Your task to perform on an android device: install app "Microsoft Authenticator" Image 0: 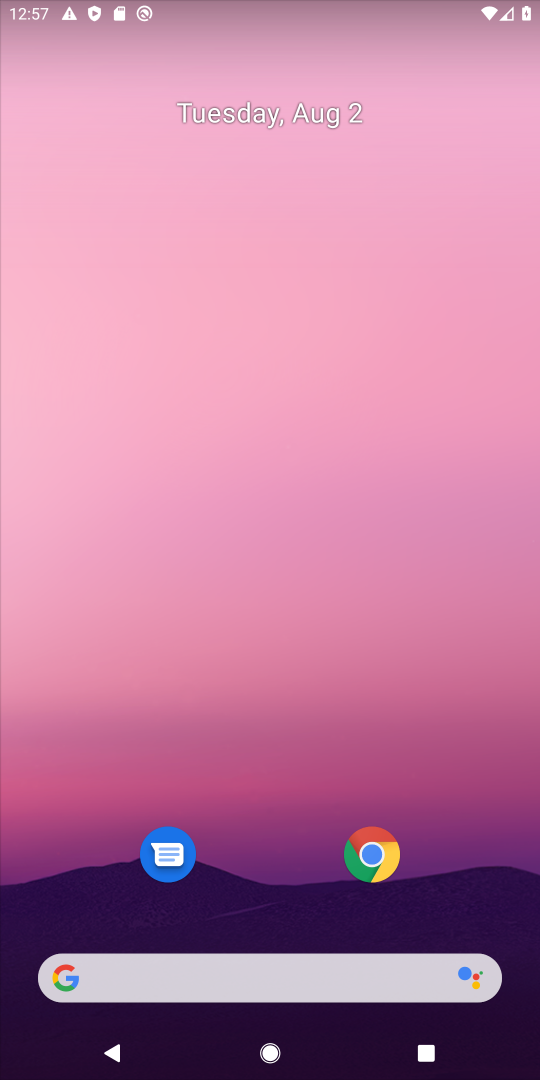
Step 0: drag from (291, 1041) to (228, 265)
Your task to perform on an android device: install app "Microsoft Authenticator" Image 1: 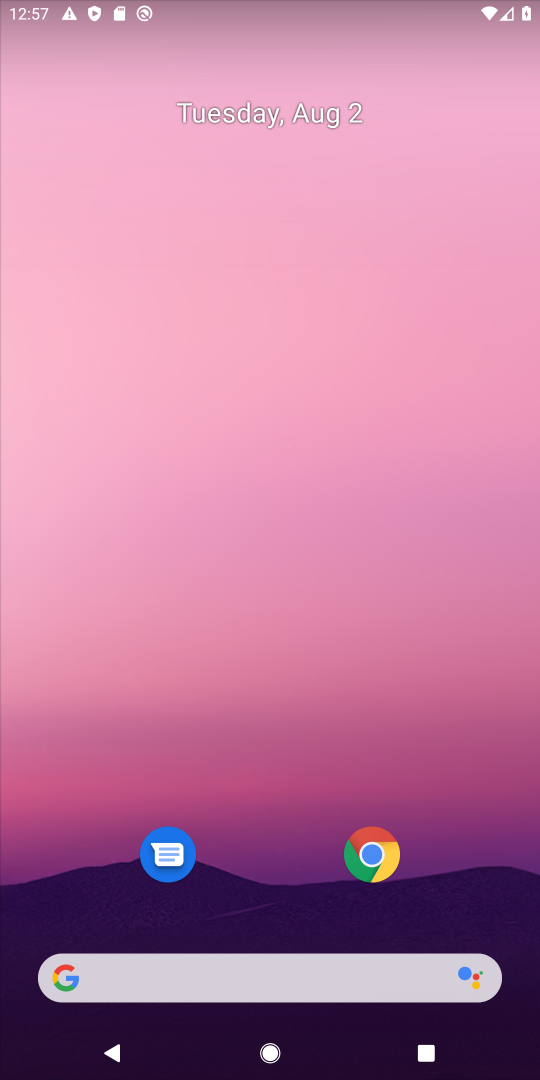
Step 1: drag from (296, 1067) to (223, 118)
Your task to perform on an android device: install app "Microsoft Authenticator" Image 2: 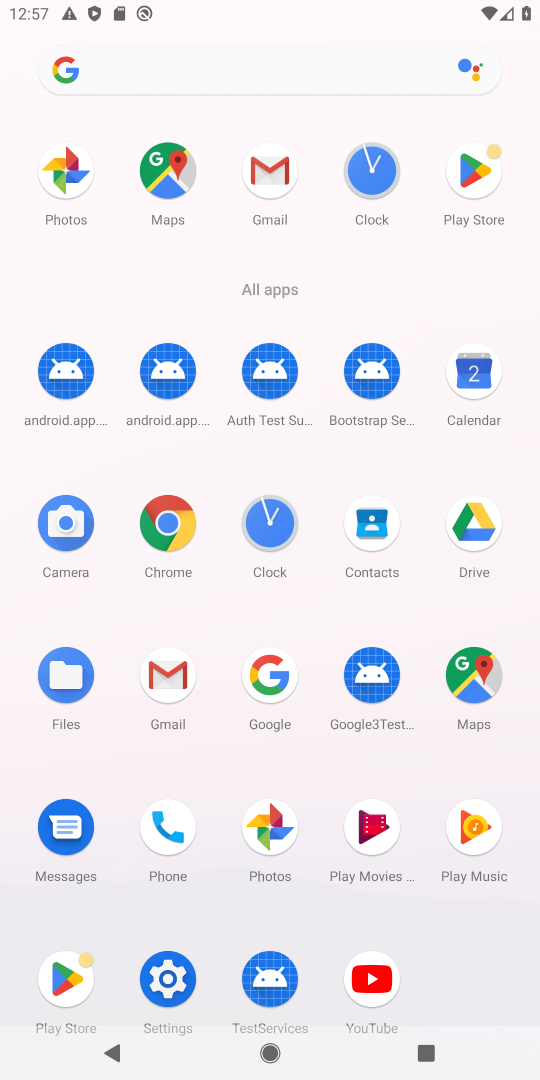
Step 2: click (469, 174)
Your task to perform on an android device: install app "Microsoft Authenticator" Image 3: 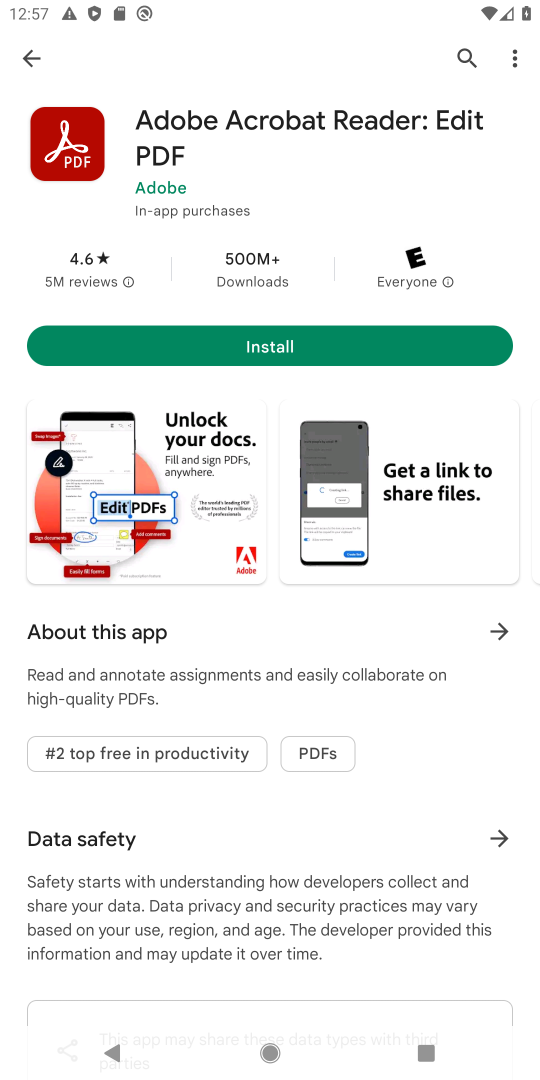
Step 3: click (466, 59)
Your task to perform on an android device: install app "Microsoft Authenticator" Image 4: 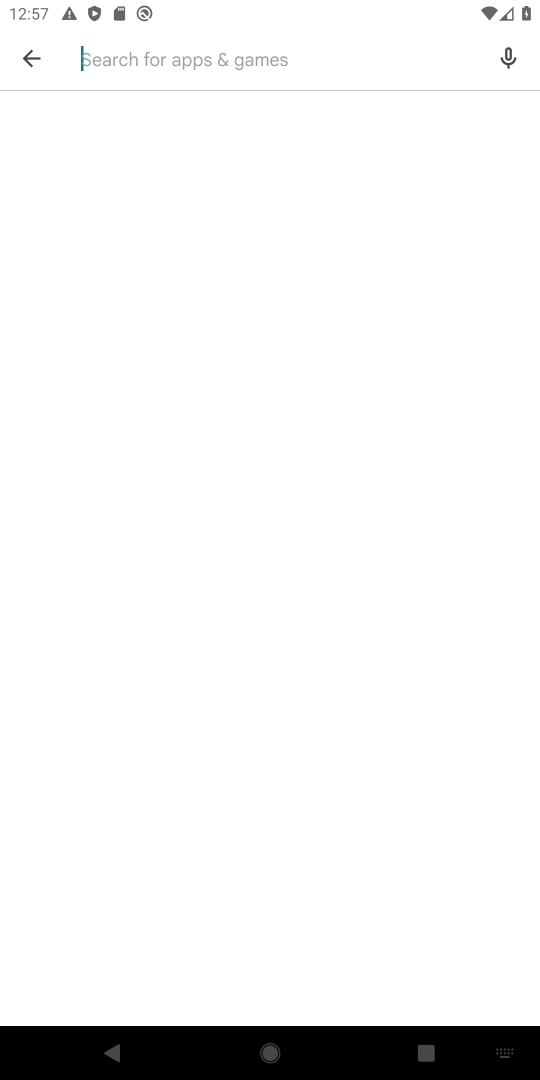
Step 4: type "Microsoft Authenticator"
Your task to perform on an android device: install app "Microsoft Authenticator" Image 5: 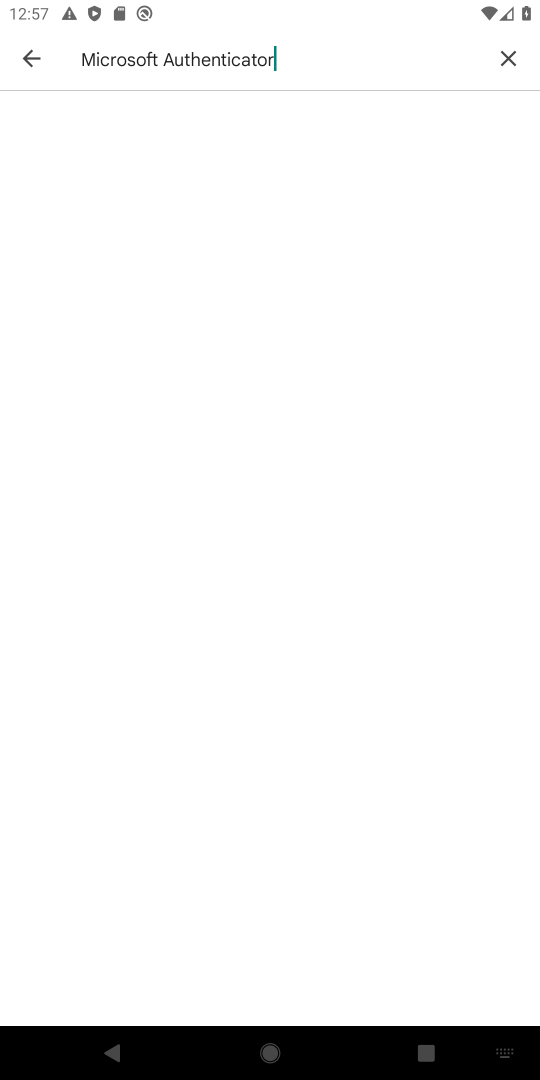
Step 5: type ""
Your task to perform on an android device: install app "Microsoft Authenticator" Image 6: 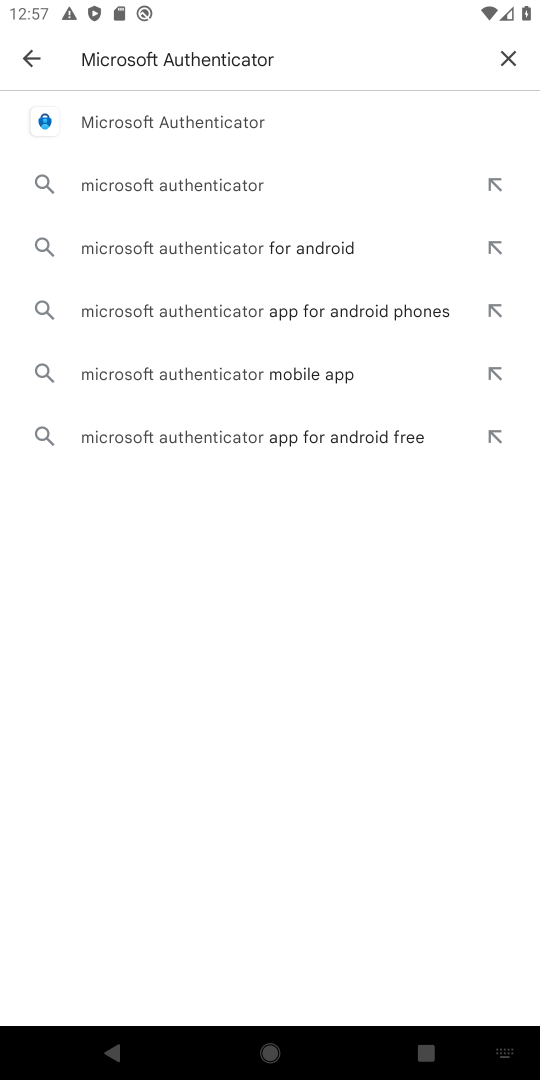
Step 6: click (157, 121)
Your task to perform on an android device: install app "Microsoft Authenticator" Image 7: 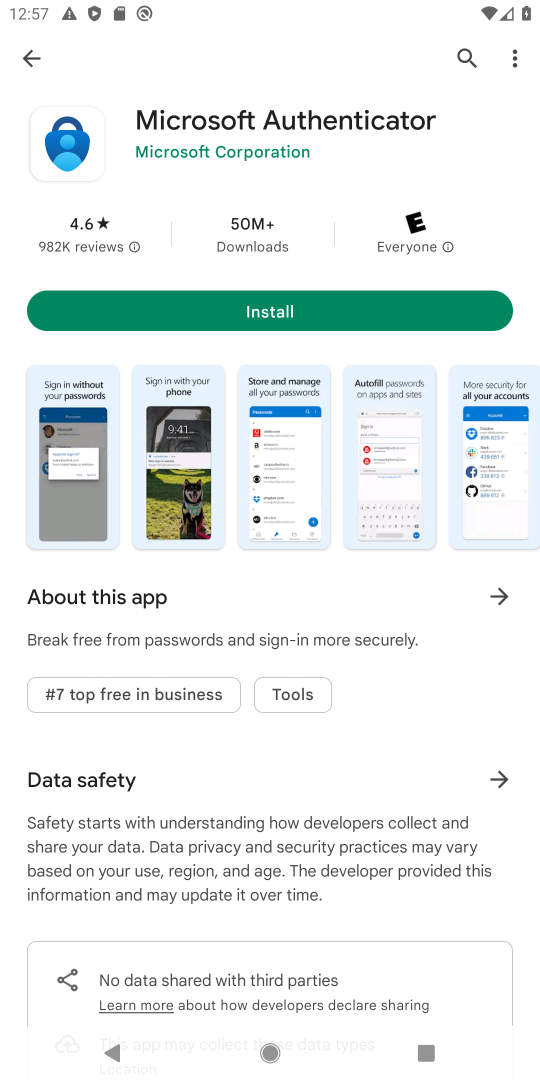
Step 7: click (278, 320)
Your task to perform on an android device: install app "Microsoft Authenticator" Image 8: 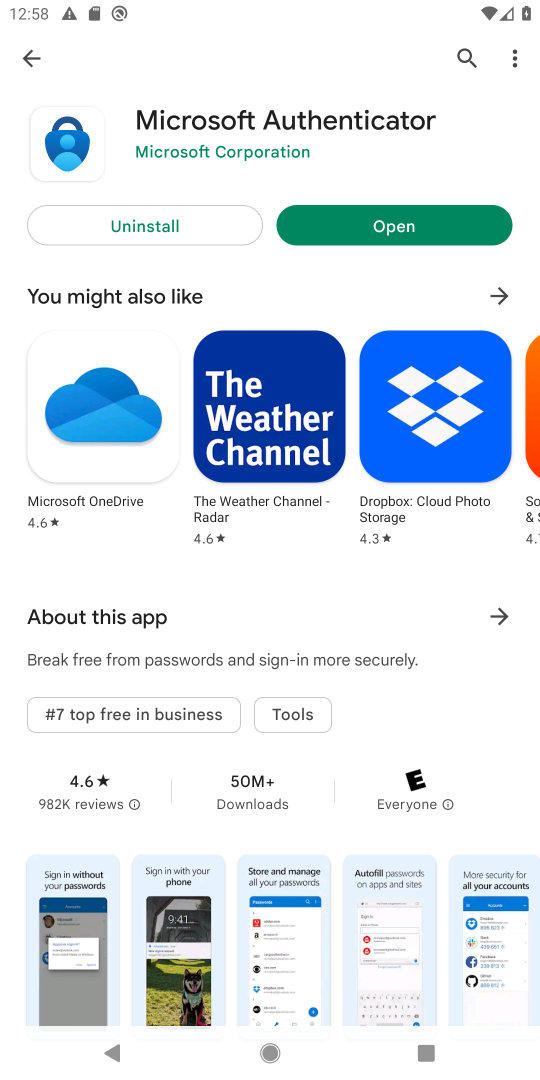
Step 8: task complete